Your task to perform on an android device: turn notification dots off Image 0: 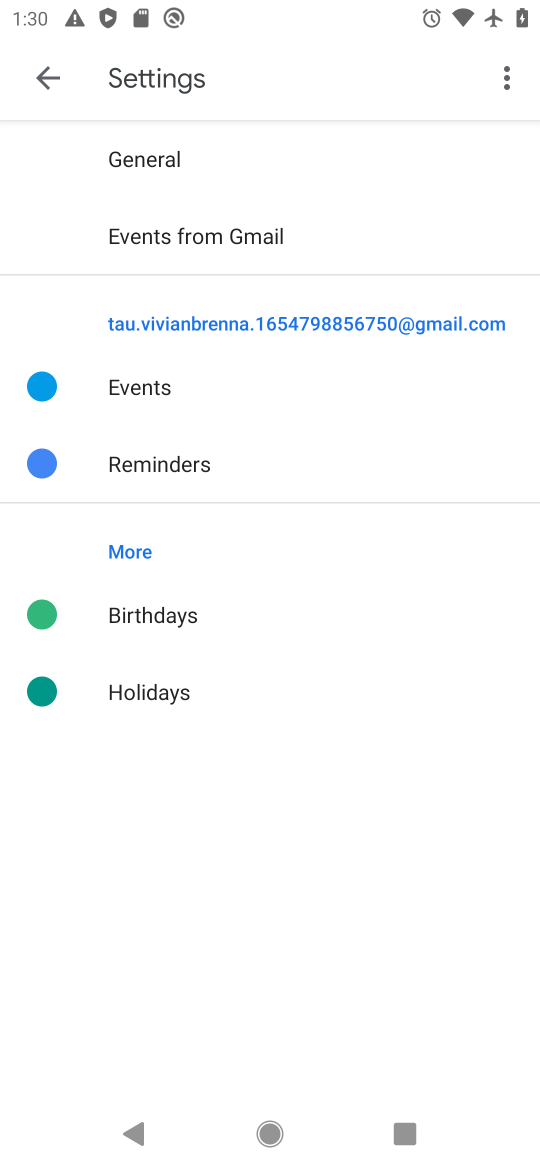
Step 0: task complete